Your task to perform on an android device: Is it going to rain today? Image 0: 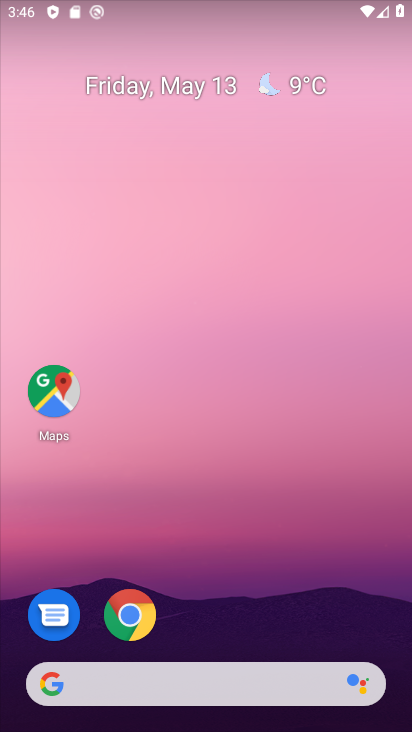
Step 0: click (291, 75)
Your task to perform on an android device: Is it going to rain today? Image 1: 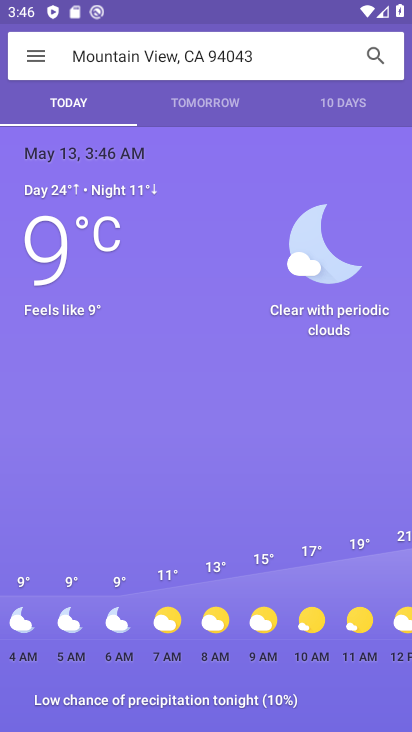
Step 1: task complete